Your task to perform on an android device: turn on the 24-hour format for clock Image 0: 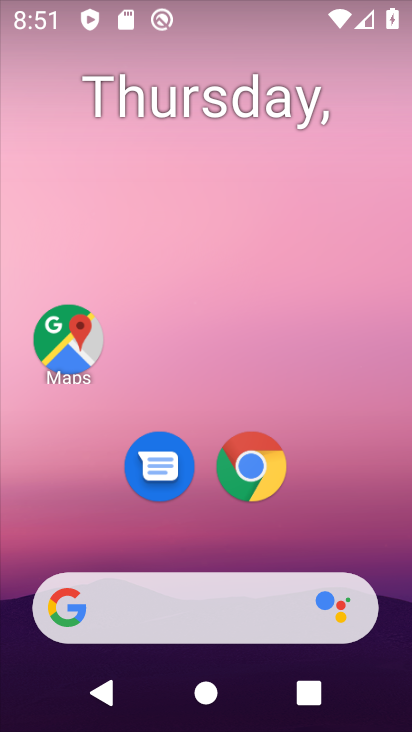
Step 0: drag from (202, 535) to (277, 9)
Your task to perform on an android device: turn on the 24-hour format for clock Image 1: 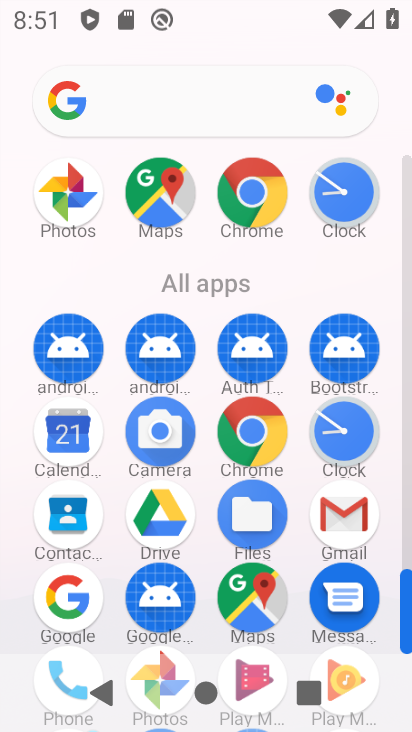
Step 1: click (352, 437)
Your task to perform on an android device: turn on the 24-hour format for clock Image 2: 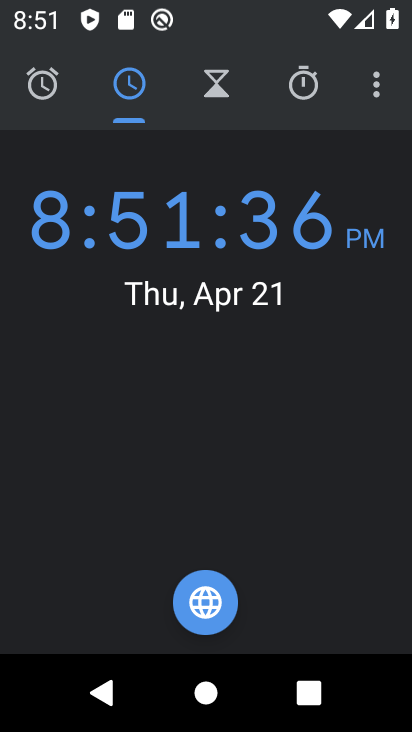
Step 2: click (380, 97)
Your task to perform on an android device: turn on the 24-hour format for clock Image 3: 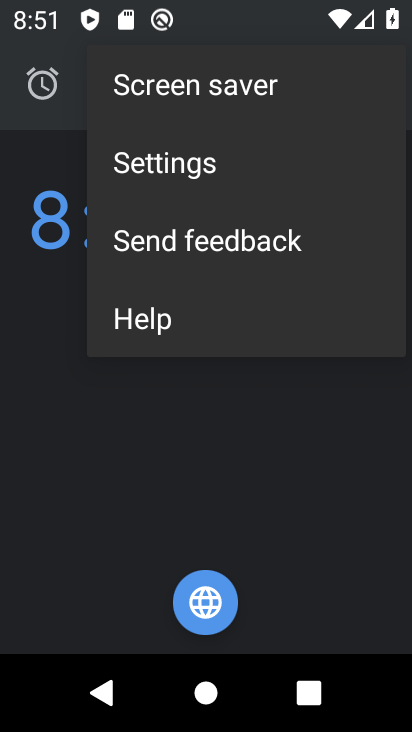
Step 3: click (190, 167)
Your task to perform on an android device: turn on the 24-hour format for clock Image 4: 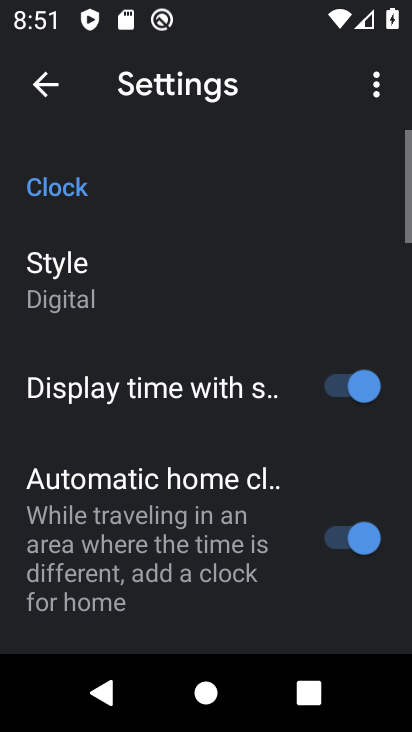
Step 4: drag from (243, 459) to (212, 159)
Your task to perform on an android device: turn on the 24-hour format for clock Image 5: 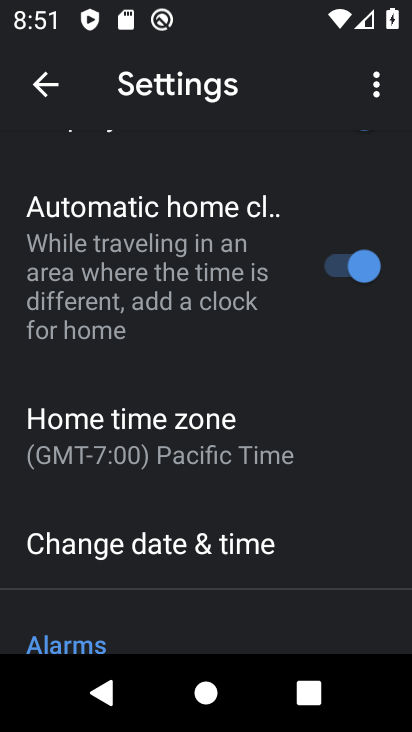
Step 5: click (156, 534)
Your task to perform on an android device: turn on the 24-hour format for clock Image 6: 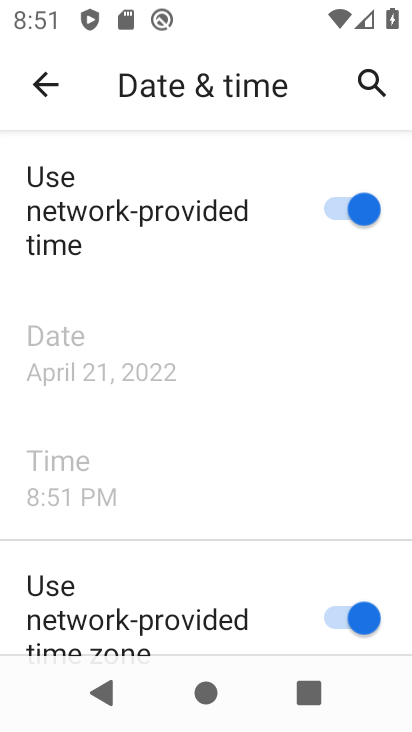
Step 6: drag from (218, 550) to (167, 107)
Your task to perform on an android device: turn on the 24-hour format for clock Image 7: 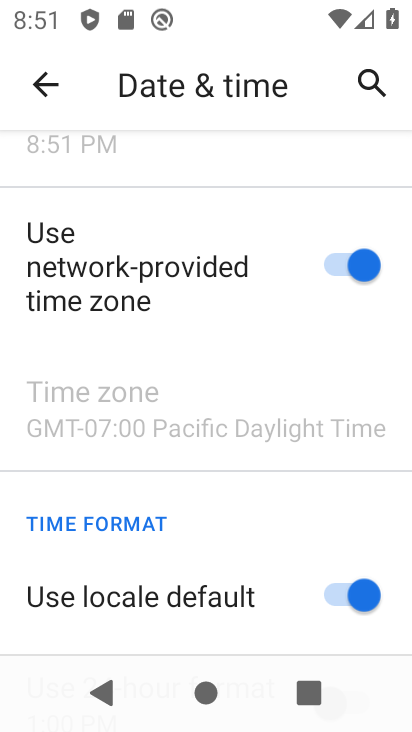
Step 7: drag from (266, 580) to (226, 158)
Your task to perform on an android device: turn on the 24-hour format for clock Image 8: 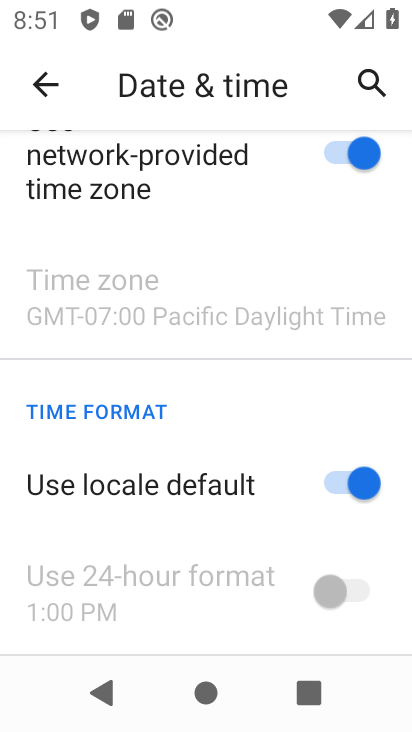
Step 8: click (316, 487)
Your task to perform on an android device: turn on the 24-hour format for clock Image 9: 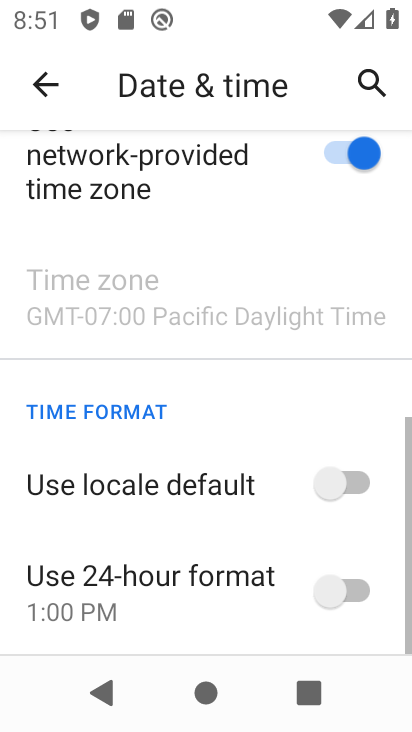
Step 9: click (357, 579)
Your task to perform on an android device: turn on the 24-hour format for clock Image 10: 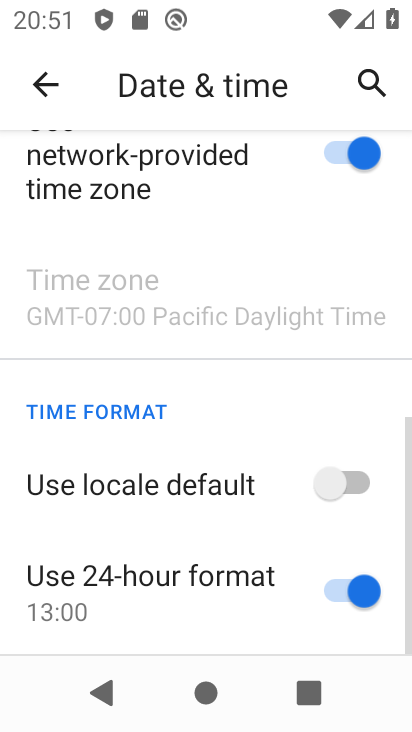
Step 10: task complete